Your task to perform on an android device: Go to Android settings Image 0: 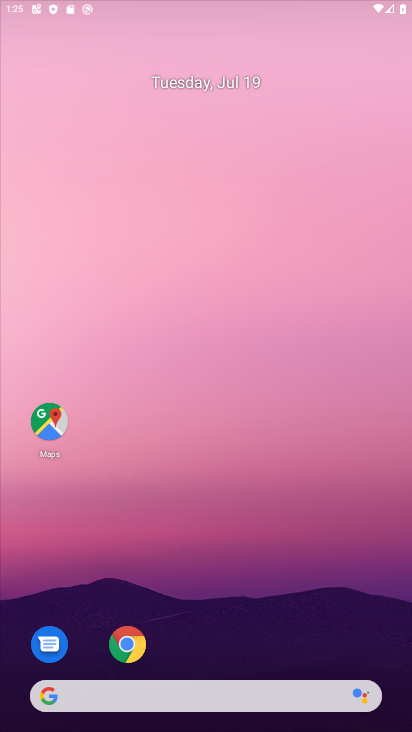
Step 0: drag from (247, 675) to (204, 75)
Your task to perform on an android device: Go to Android settings Image 1: 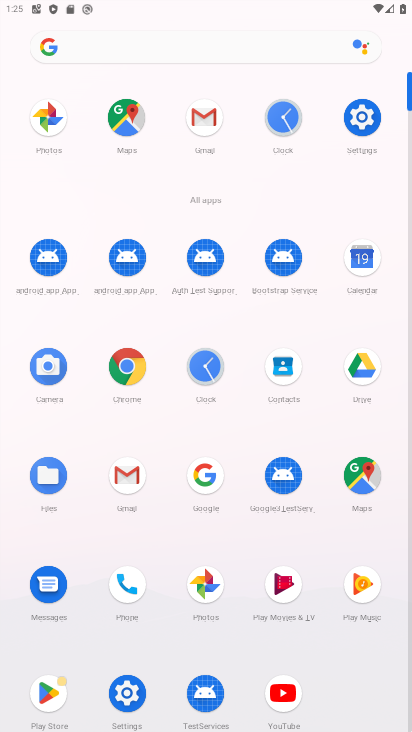
Step 1: click (350, 109)
Your task to perform on an android device: Go to Android settings Image 2: 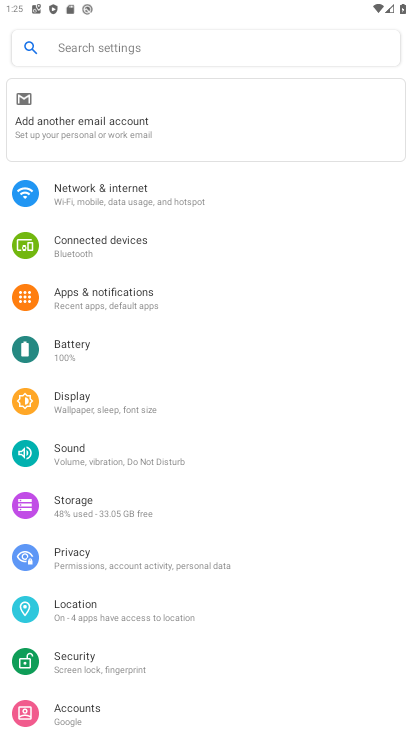
Step 2: task complete